Your task to perform on an android device: Open Chrome and go to settings Image 0: 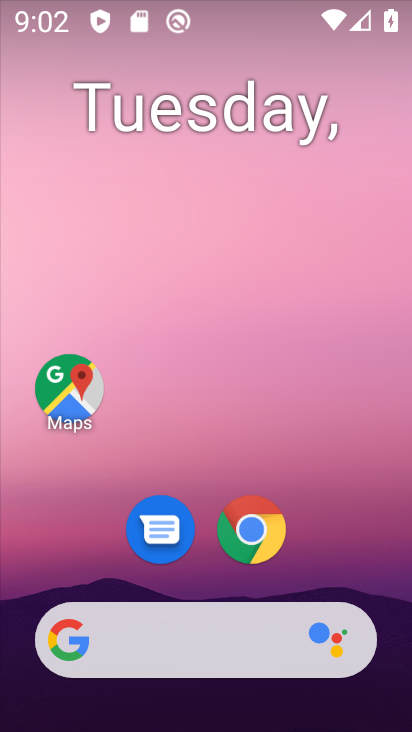
Step 0: click (254, 526)
Your task to perform on an android device: Open Chrome and go to settings Image 1: 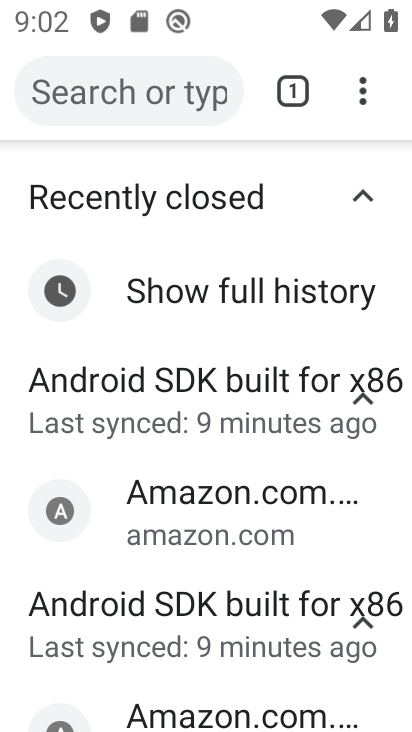
Step 1: click (363, 96)
Your task to perform on an android device: Open Chrome and go to settings Image 2: 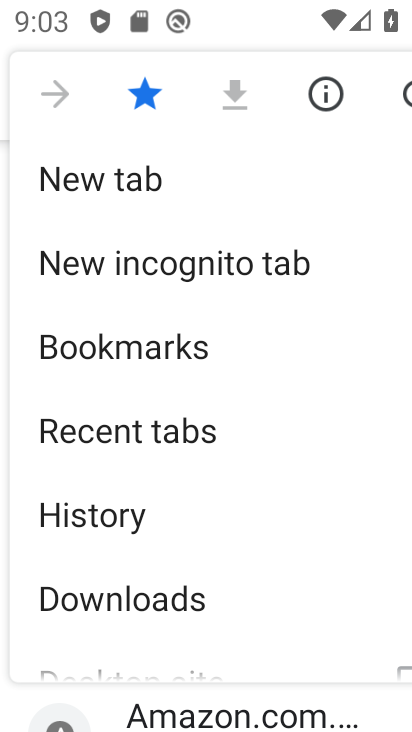
Step 2: drag from (232, 608) to (259, 355)
Your task to perform on an android device: Open Chrome and go to settings Image 3: 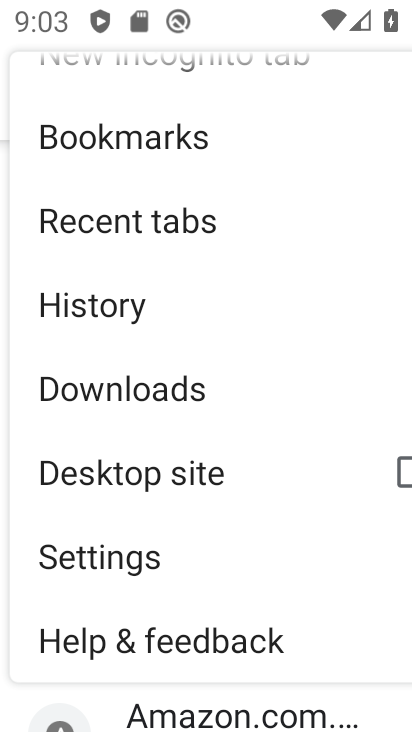
Step 3: click (97, 556)
Your task to perform on an android device: Open Chrome and go to settings Image 4: 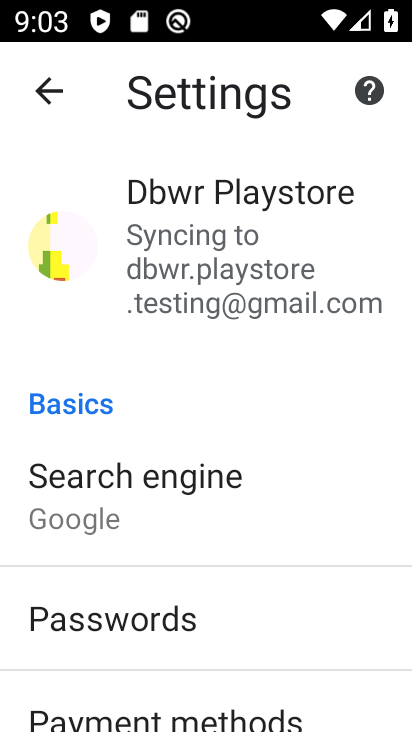
Step 4: task complete